Your task to perform on an android device: turn on the 12-hour format for clock Image 0: 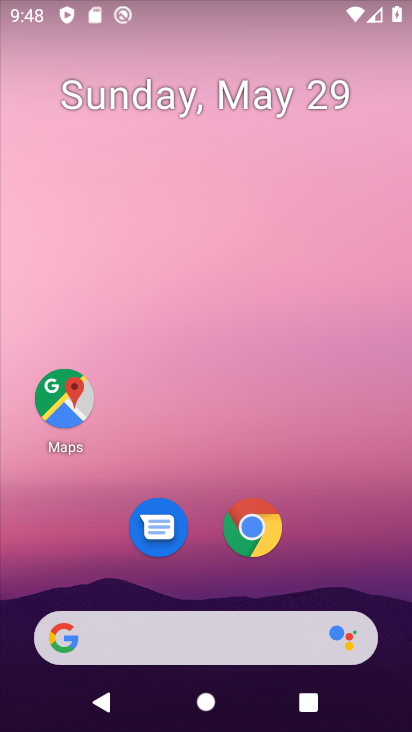
Step 0: drag from (316, 519) to (274, 41)
Your task to perform on an android device: turn on the 12-hour format for clock Image 1: 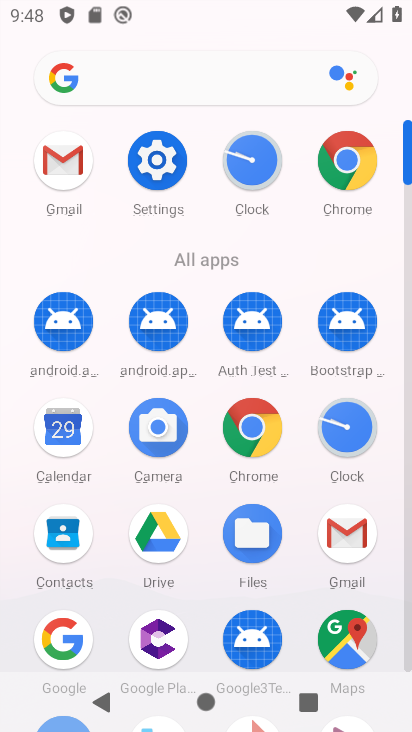
Step 1: click (245, 159)
Your task to perform on an android device: turn on the 12-hour format for clock Image 2: 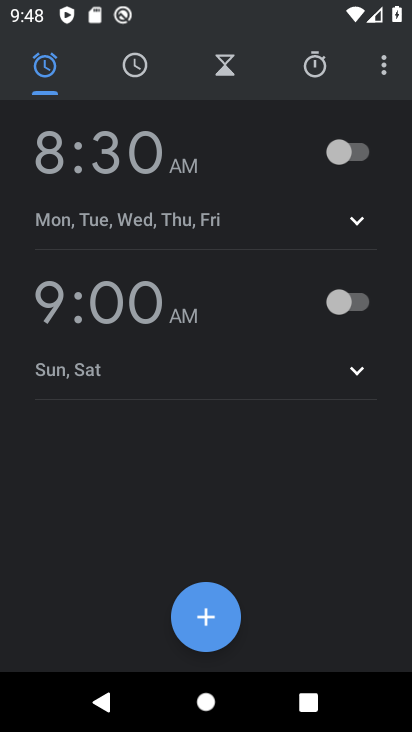
Step 2: drag from (381, 69) to (321, 121)
Your task to perform on an android device: turn on the 12-hour format for clock Image 3: 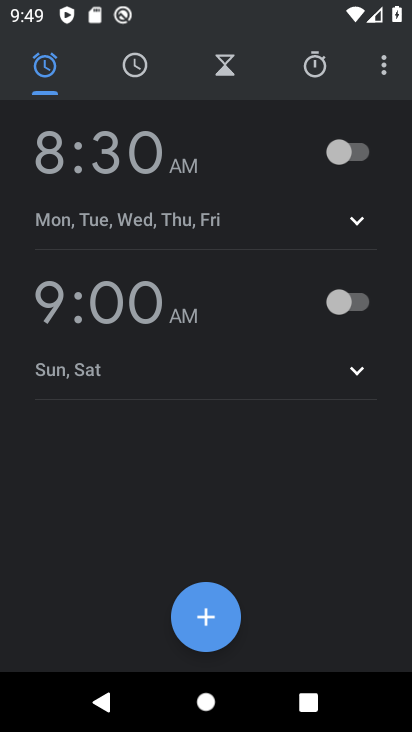
Step 3: click (388, 57)
Your task to perform on an android device: turn on the 12-hour format for clock Image 4: 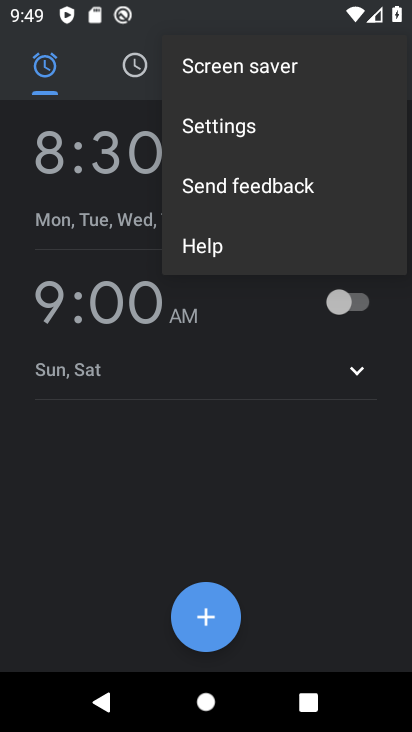
Step 4: click (234, 130)
Your task to perform on an android device: turn on the 12-hour format for clock Image 5: 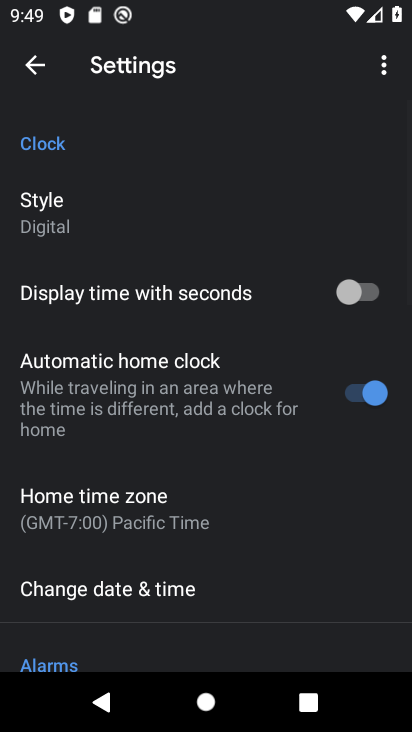
Step 5: drag from (261, 551) to (264, 165)
Your task to perform on an android device: turn on the 12-hour format for clock Image 6: 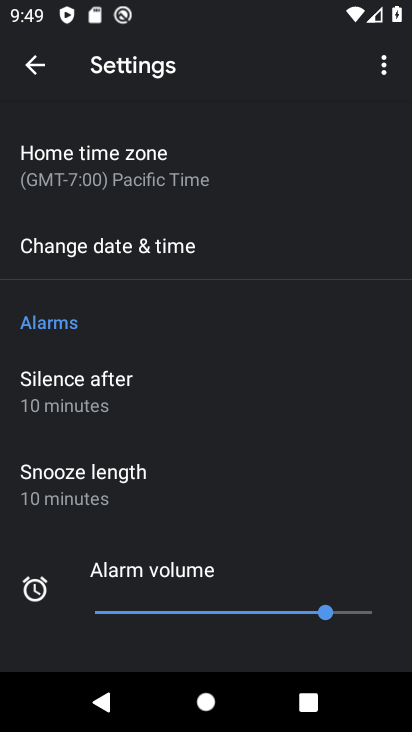
Step 6: click (171, 249)
Your task to perform on an android device: turn on the 12-hour format for clock Image 7: 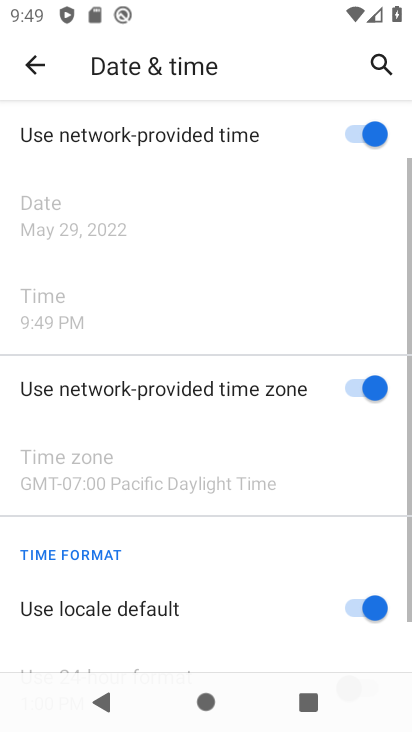
Step 7: task complete